Your task to perform on an android device: find which apps use the phone's location Image 0: 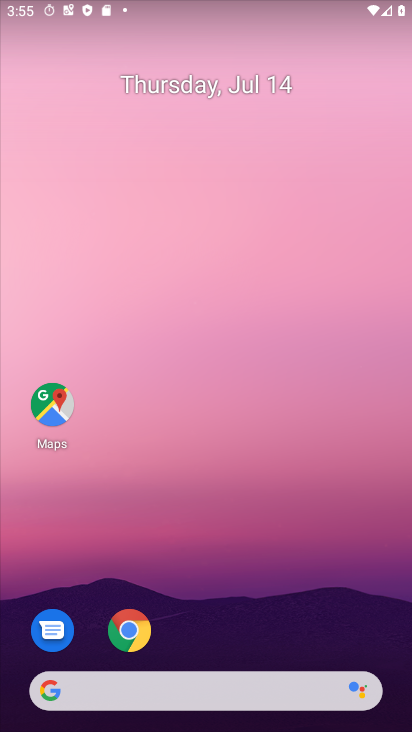
Step 0: drag from (223, 725) to (265, 218)
Your task to perform on an android device: find which apps use the phone's location Image 1: 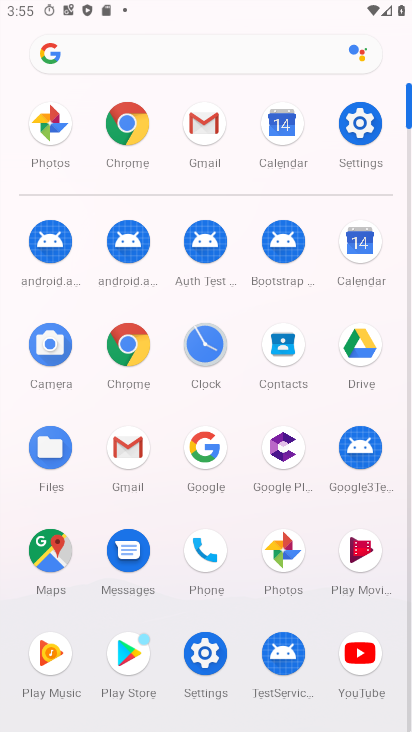
Step 1: click (361, 129)
Your task to perform on an android device: find which apps use the phone's location Image 2: 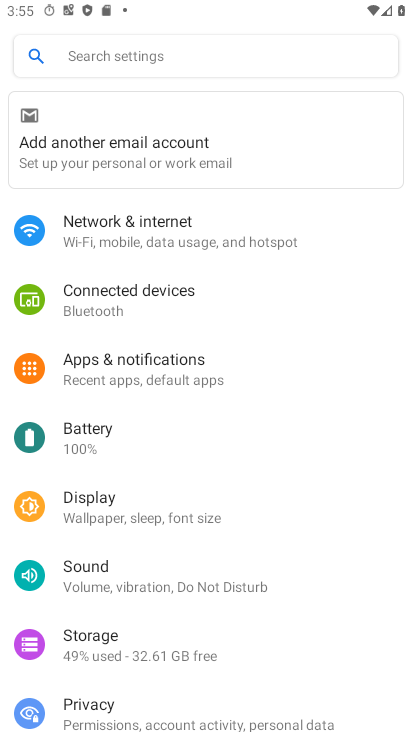
Step 2: drag from (121, 679) to (120, 277)
Your task to perform on an android device: find which apps use the phone's location Image 3: 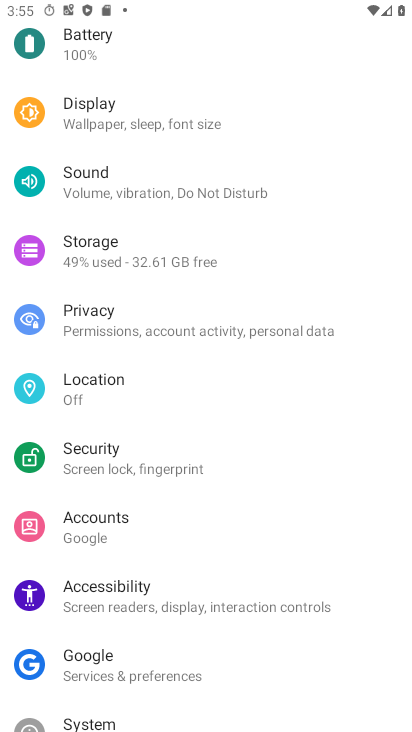
Step 3: click (73, 386)
Your task to perform on an android device: find which apps use the phone's location Image 4: 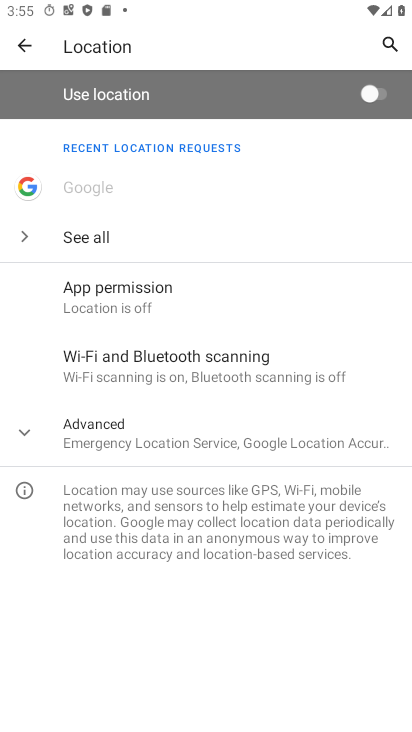
Step 4: click (111, 288)
Your task to perform on an android device: find which apps use the phone's location Image 5: 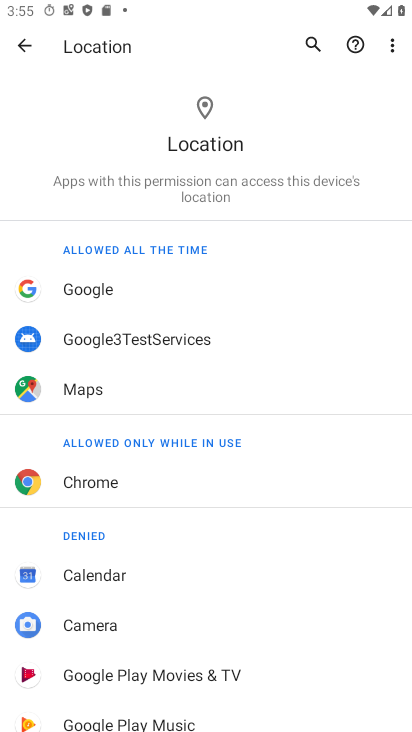
Step 5: task complete